Your task to perform on an android device: toggle priority inbox in the gmail app Image 0: 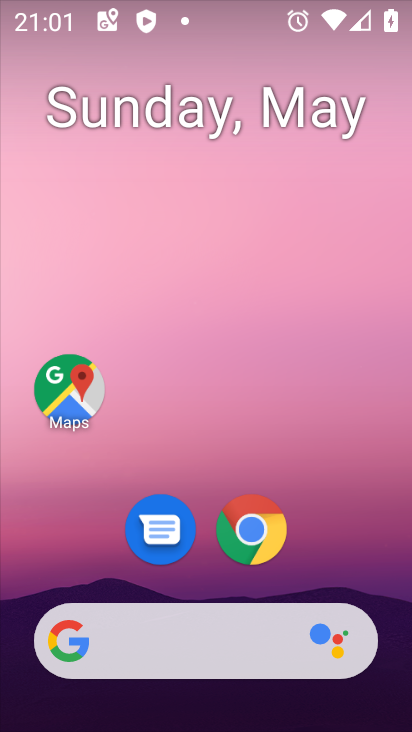
Step 0: drag from (339, 596) to (315, 3)
Your task to perform on an android device: toggle priority inbox in the gmail app Image 1: 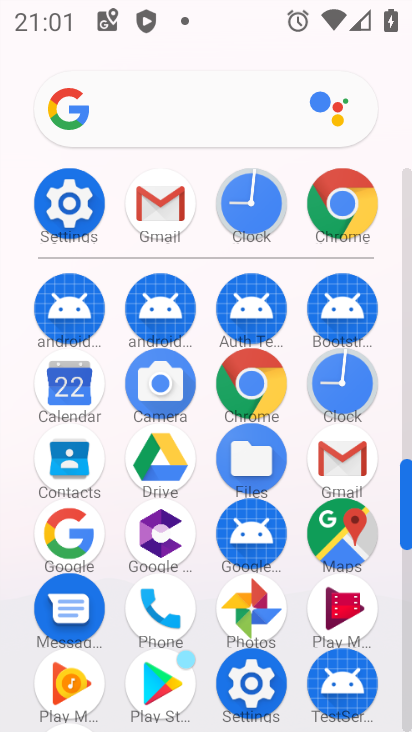
Step 1: click (174, 204)
Your task to perform on an android device: toggle priority inbox in the gmail app Image 2: 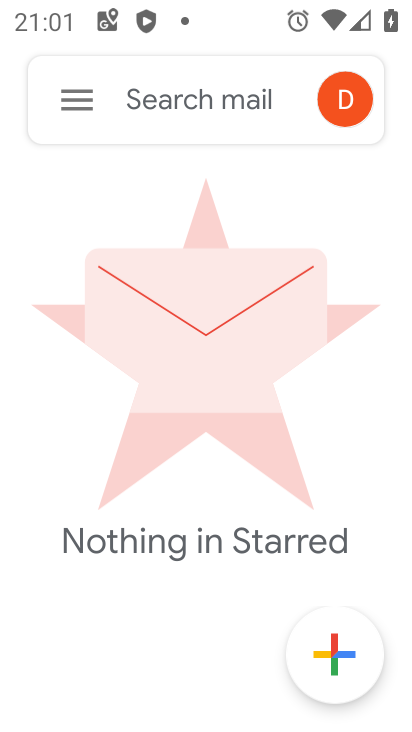
Step 2: click (73, 97)
Your task to perform on an android device: toggle priority inbox in the gmail app Image 3: 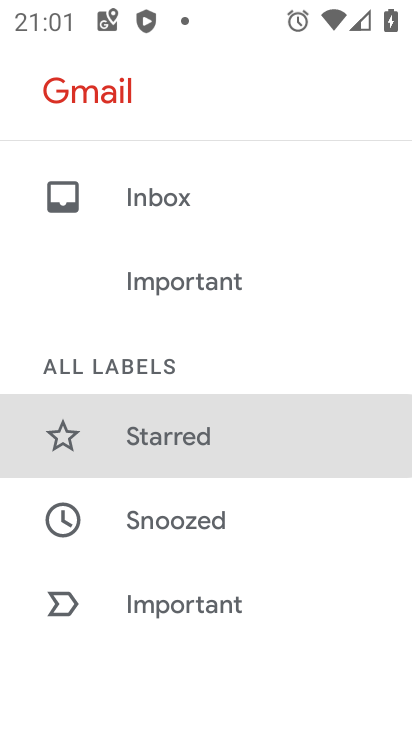
Step 3: drag from (258, 508) to (242, 94)
Your task to perform on an android device: toggle priority inbox in the gmail app Image 4: 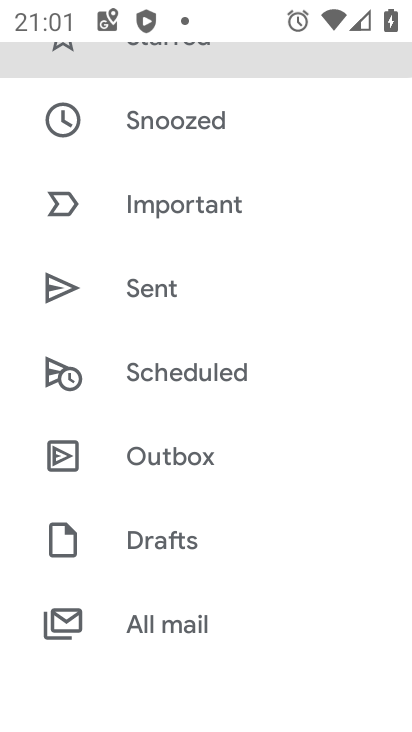
Step 4: drag from (225, 595) to (195, 91)
Your task to perform on an android device: toggle priority inbox in the gmail app Image 5: 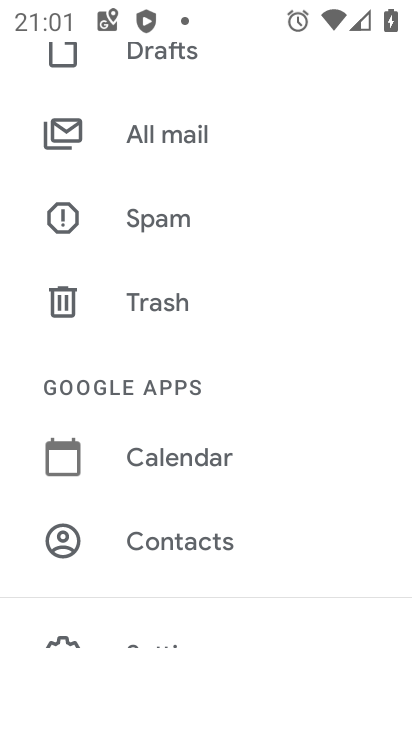
Step 5: drag from (209, 547) to (171, 180)
Your task to perform on an android device: toggle priority inbox in the gmail app Image 6: 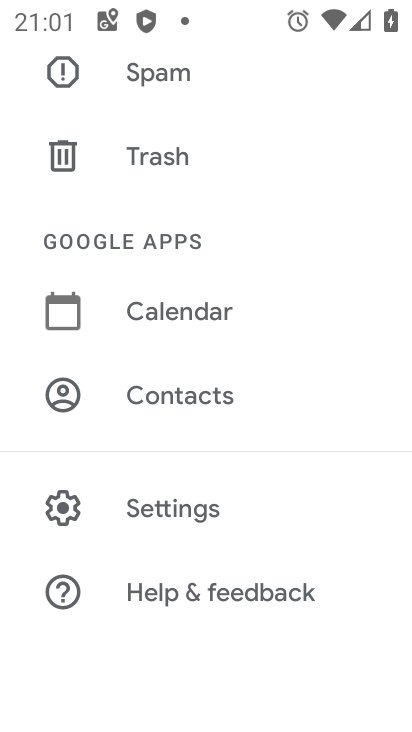
Step 6: click (161, 515)
Your task to perform on an android device: toggle priority inbox in the gmail app Image 7: 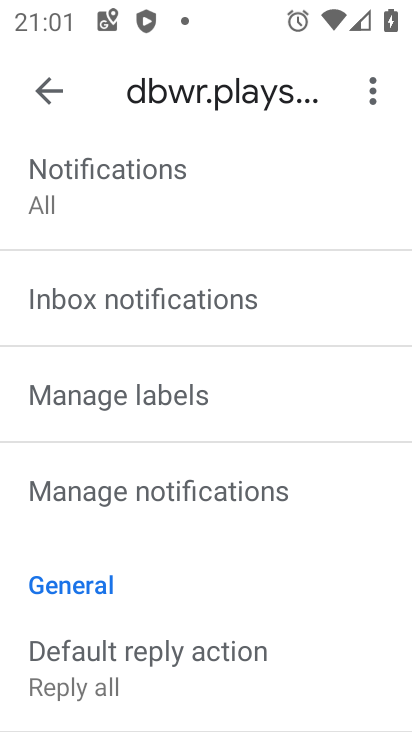
Step 7: drag from (279, 190) to (281, 648)
Your task to perform on an android device: toggle priority inbox in the gmail app Image 8: 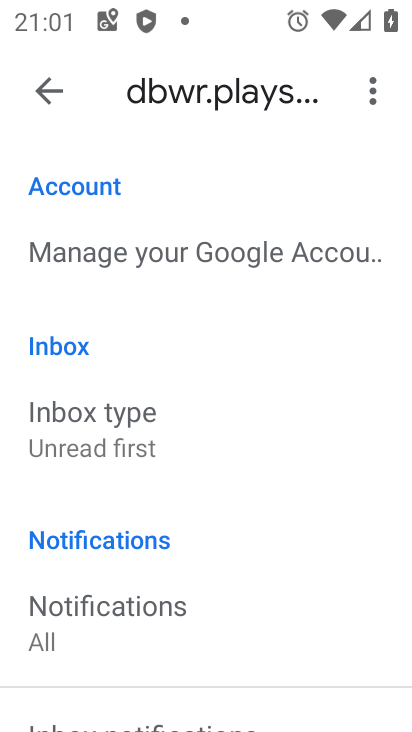
Step 8: click (107, 444)
Your task to perform on an android device: toggle priority inbox in the gmail app Image 9: 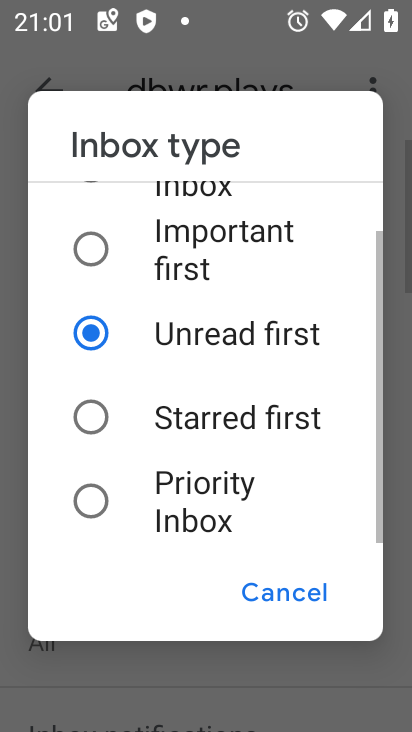
Step 9: click (106, 506)
Your task to perform on an android device: toggle priority inbox in the gmail app Image 10: 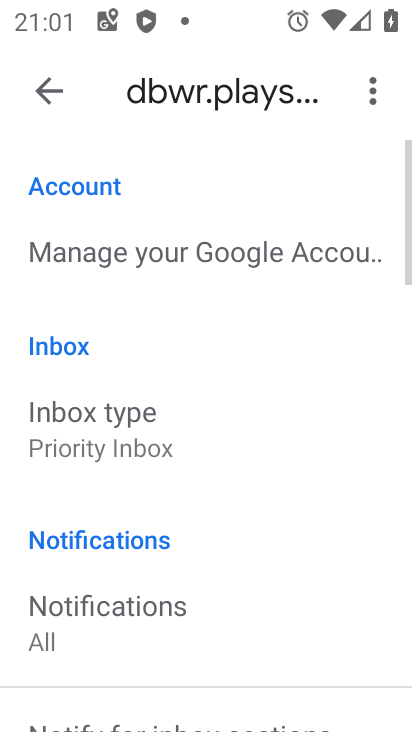
Step 10: task complete